Your task to perform on an android device: Turn on the flashlight Image 0: 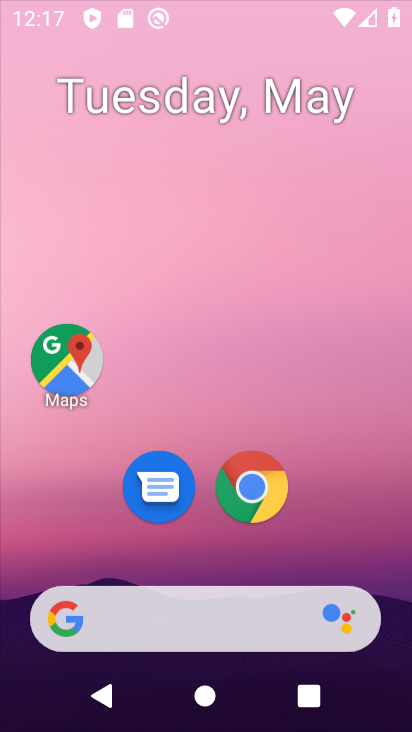
Step 0: drag from (301, 351) to (235, 0)
Your task to perform on an android device: Turn on the flashlight Image 1: 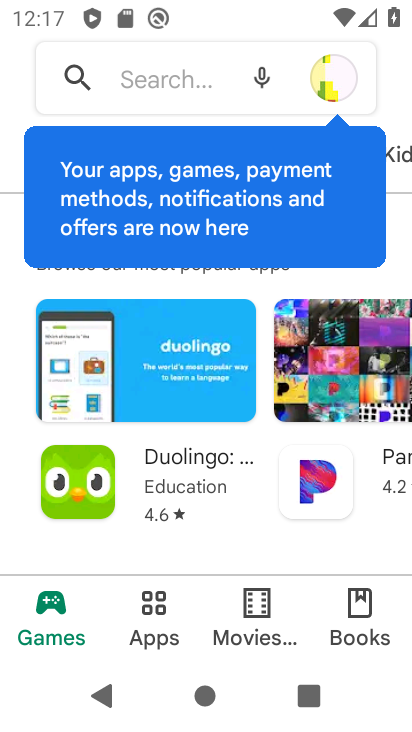
Step 1: press back button
Your task to perform on an android device: Turn on the flashlight Image 2: 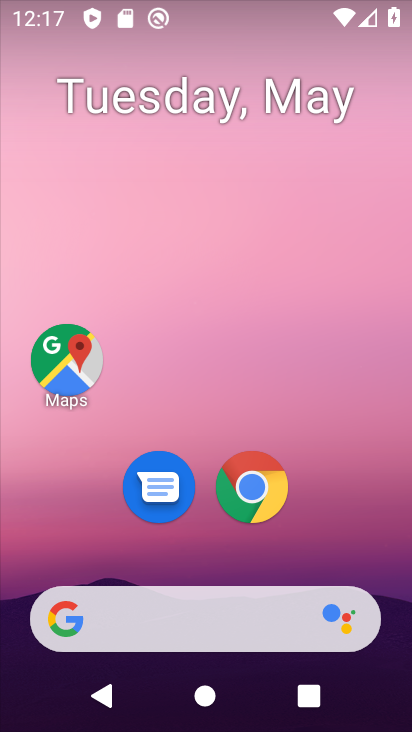
Step 2: drag from (350, 498) to (282, 44)
Your task to perform on an android device: Turn on the flashlight Image 3: 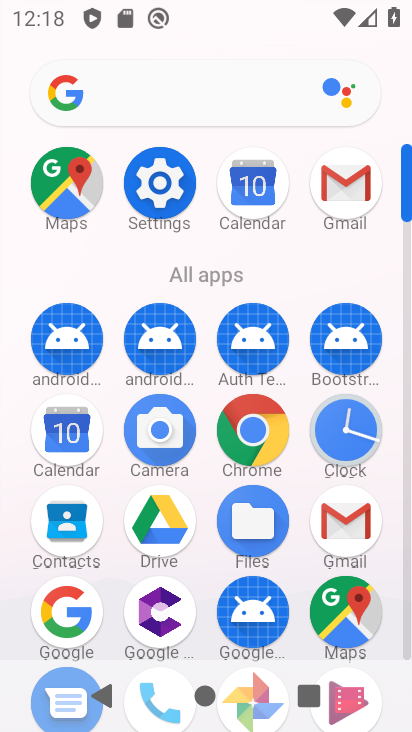
Step 3: drag from (11, 552) to (42, 234)
Your task to perform on an android device: Turn on the flashlight Image 4: 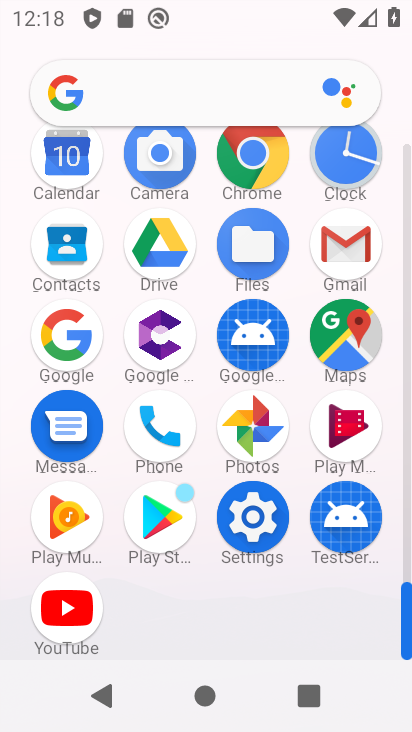
Step 4: click (255, 517)
Your task to perform on an android device: Turn on the flashlight Image 5: 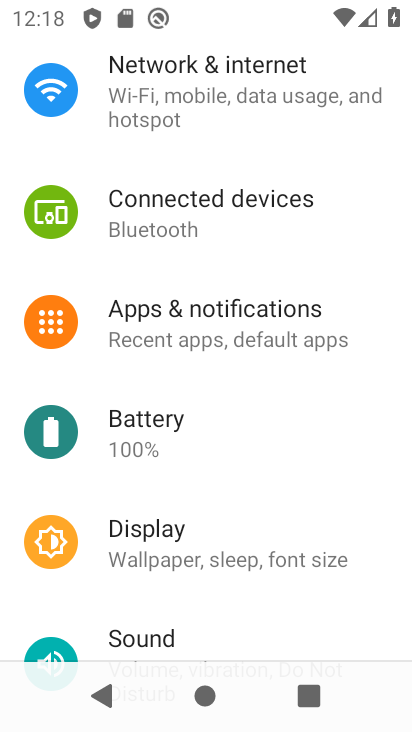
Step 5: drag from (270, 139) to (214, 580)
Your task to perform on an android device: Turn on the flashlight Image 6: 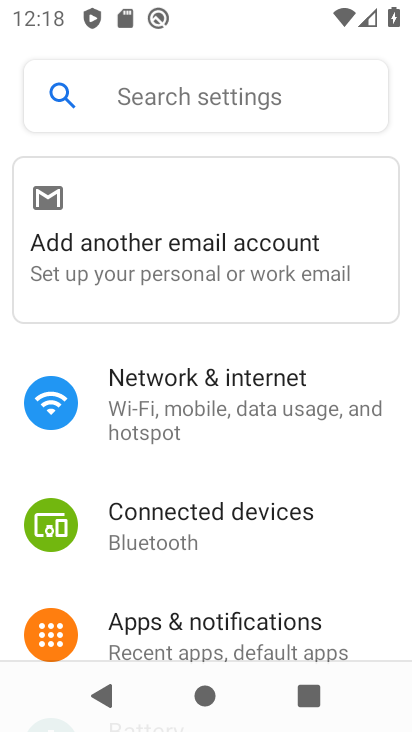
Step 6: click (245, 413)
Your task to perform on an android device: Turn on the flashlight Image 7: 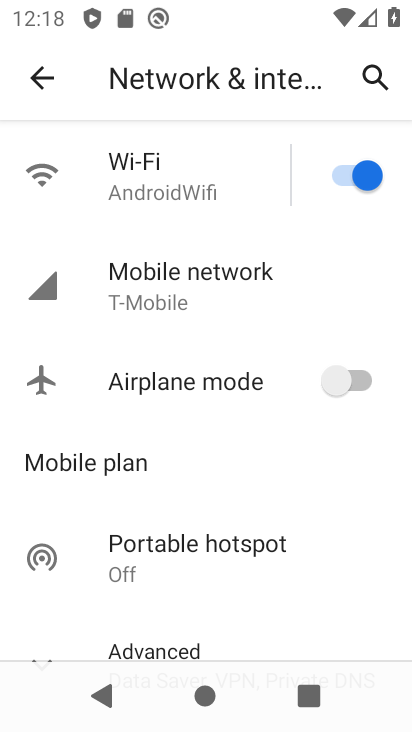
Step 7: drag from (234, 493) to (257, 188)
Your task to perform on an android device: Turn on the flashlight Image 8: 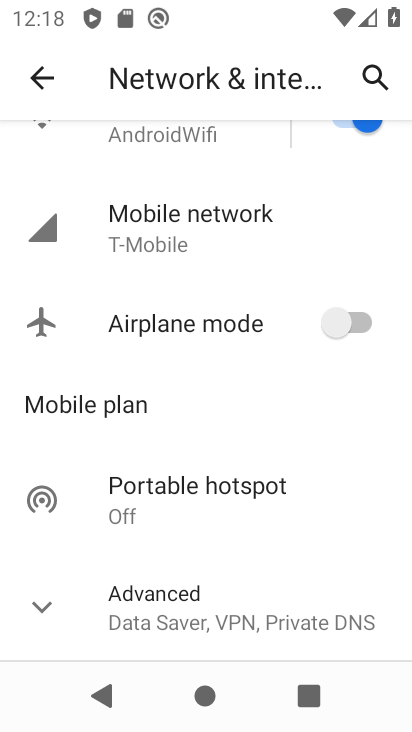
Step 8: click (37, 602)
Your task to perform on an android device: Turn on the flashlight Image 9: 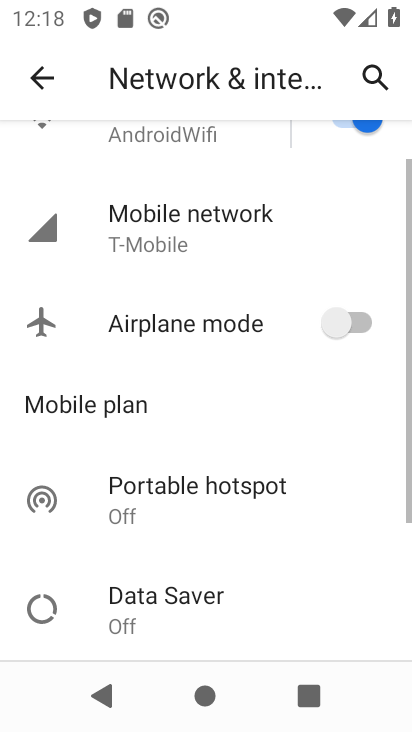
Step 9: drag from (218, 567) to (231, 258)
Your task to perform on an android device: Turn on the flashlight Image 10: 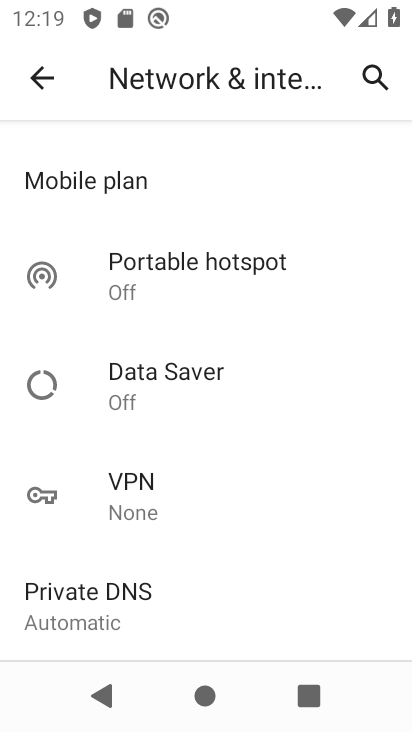
Step 10: drag from (245, 552) to (238, 241)
Your task to perform on an android device: Turn on the flashlight Image 11: 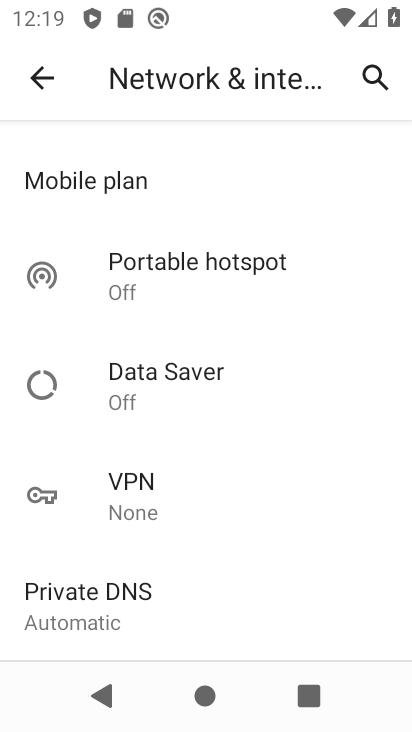
Step 11: drag from (204, 602) to (263, 123)
Your task to perform on an android device: Turn on the flashlight Image 12: 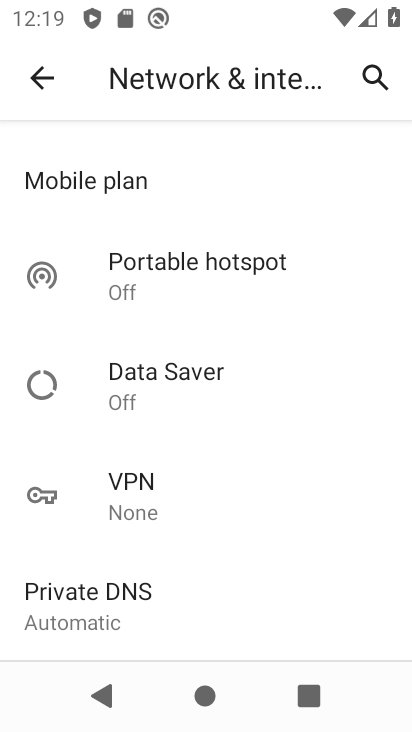
Step 12: click (29, 70)
Your task to perform on an android device: Turn on the flashlight Image 13: 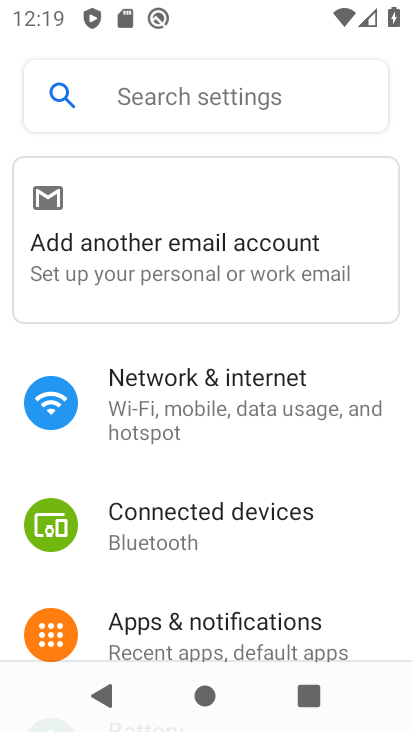
Step 13: task complete